Your task to perform on an android device: Search for vegetarian restaurants on Maps Image 0: 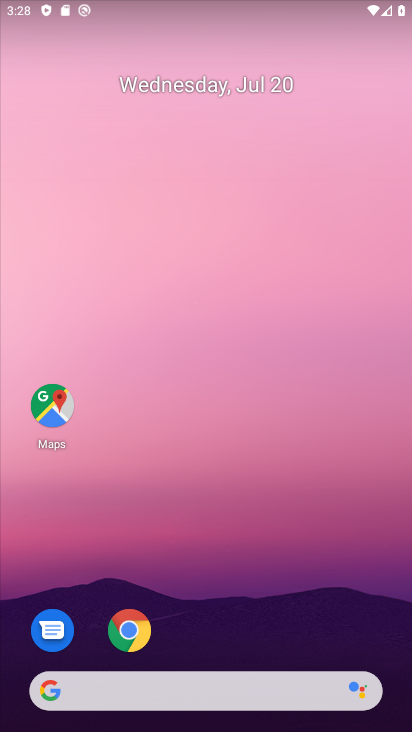
Step 0: drag from (301, 382) to (307, 27)
Your task to perform on an android device: Search for vegetarian restaurants on Maps Image 1: 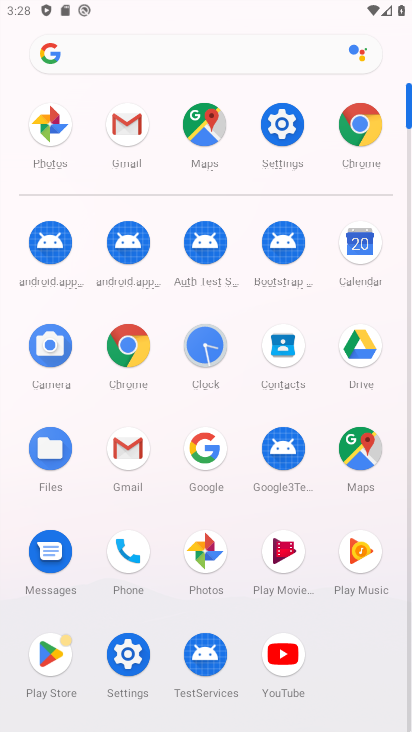
Step 1: click (205, 118)
Your task to perform on an android device: Search for vegetarian restaurants on Maps Image 2: 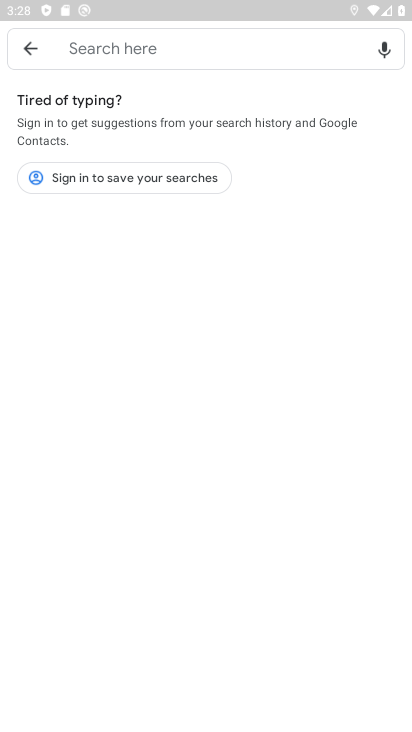
Step 2: click (138, 40)
Your task to perform on an android device: Search for vegetarian restaurants on Maps Image 3: 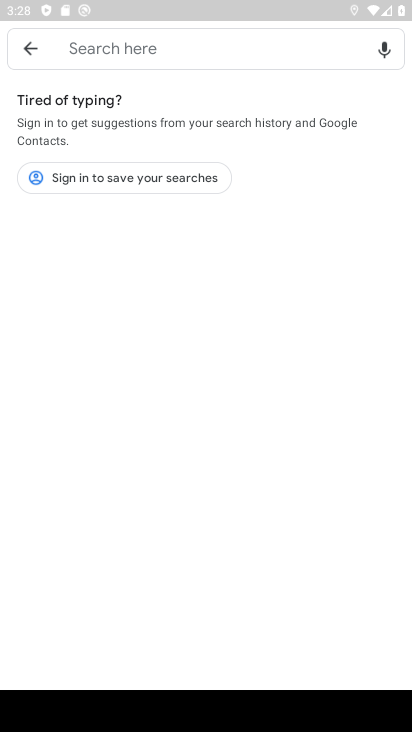
Step 3: click (134, 174)
Your task to perform on an android device: Search for vegetarian restaurants on Maps Image 4: 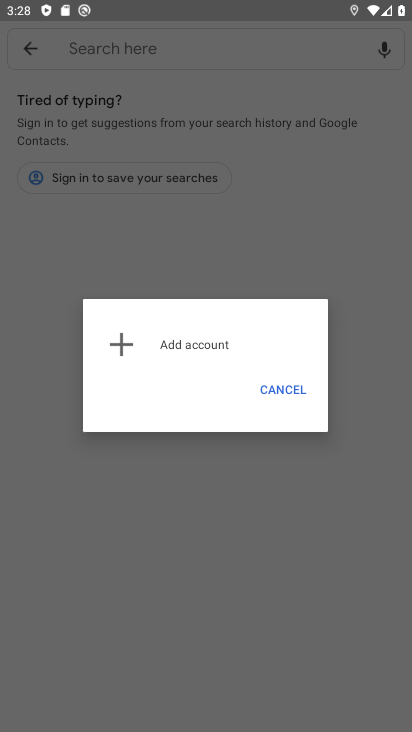
Step 4: click (278, 394)
Your task to perform on an android device: Search for vegetarian restaurants on Maps Image 5: 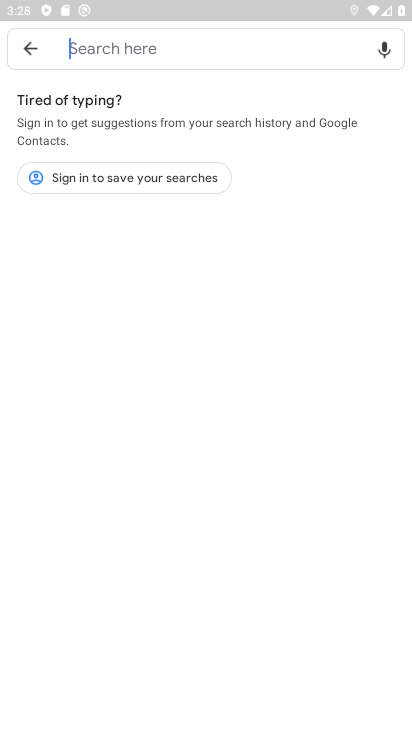
Step 5: task complete